Your task to perform on an android device: When is my next appointment? Image 0: 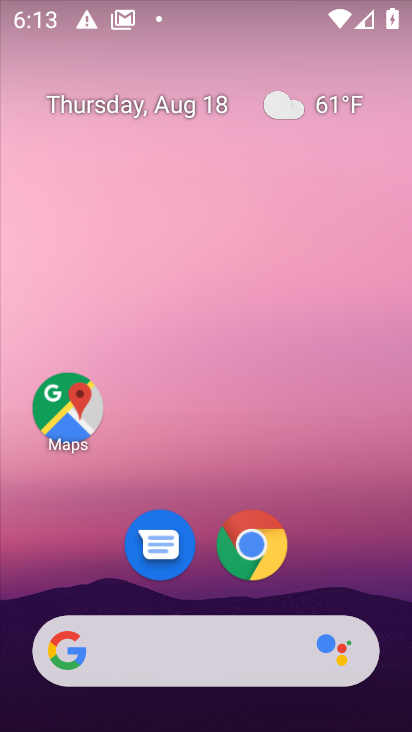
Step 0: drag from (326, 551) to (216, 79)
Your task to perform on an android device: When is my next appointment? Image 1: 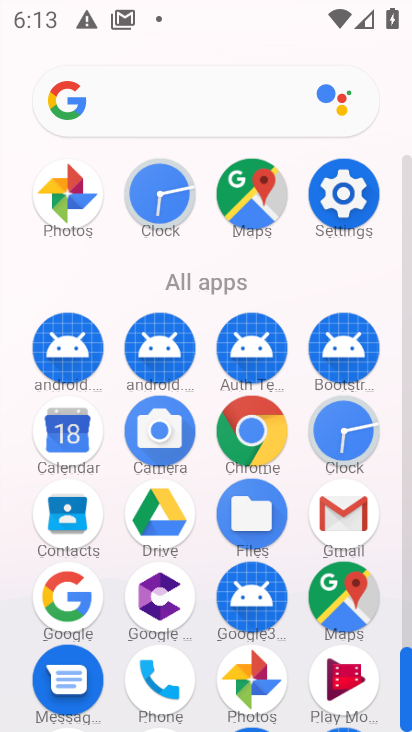
Step 1: click (72, 444)
Your task to perform on an android device: When is my next appointment? Image 2: 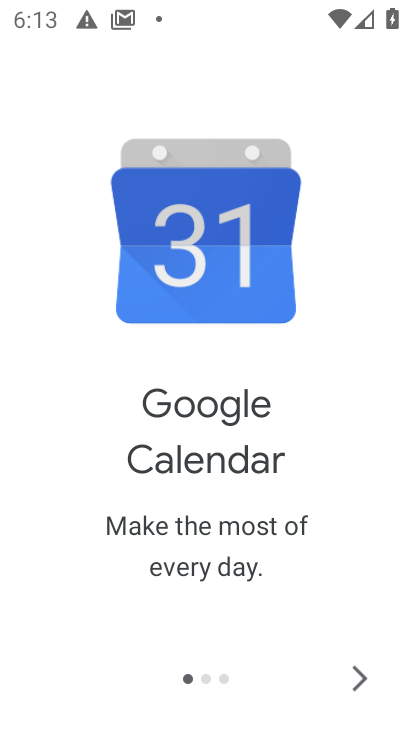
Step 2: click (354, 675)
Your task to perform on an android device: When is my next appointment? Image 3: 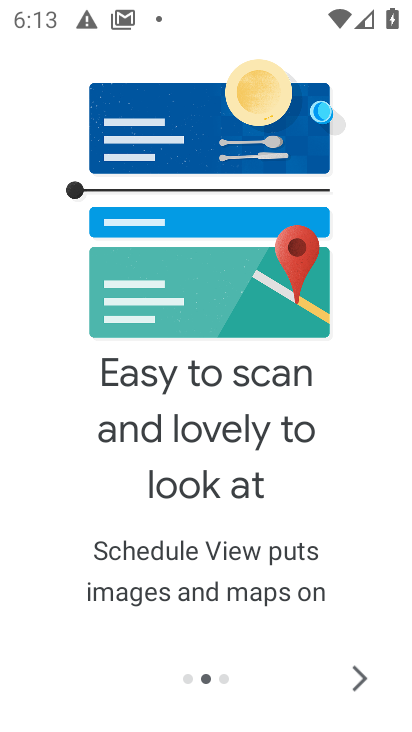
Step 3: click (360, 669)
Your task to perform on an android device: When is my next appointment? Image 4: 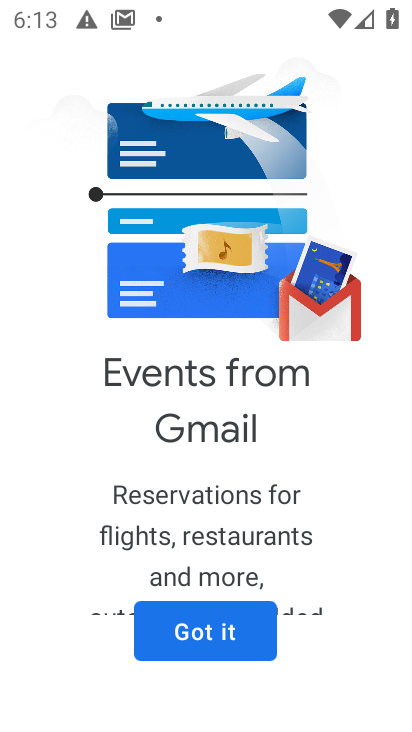
Step 4: click (204, 619)
Your task to perform on an android device: When is my next appointment? Image 5: 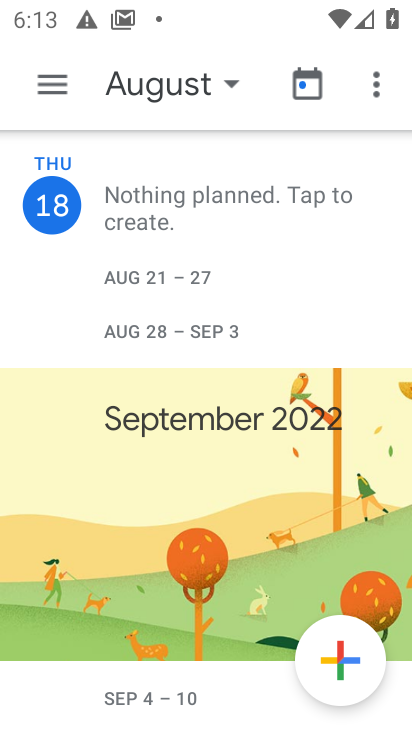
Step 5: click (267, 387)
Your task to perform on an android device: When is my next appointment? Image 6: 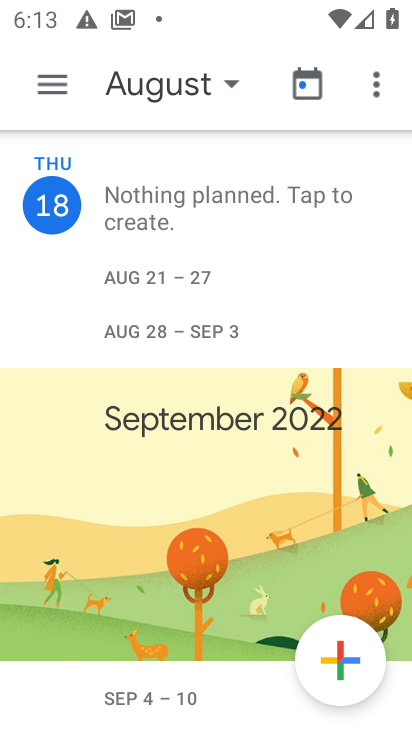
Step 6: click (49, 73)
Your task to perform on an android device: When is my next appointment? Image 7: 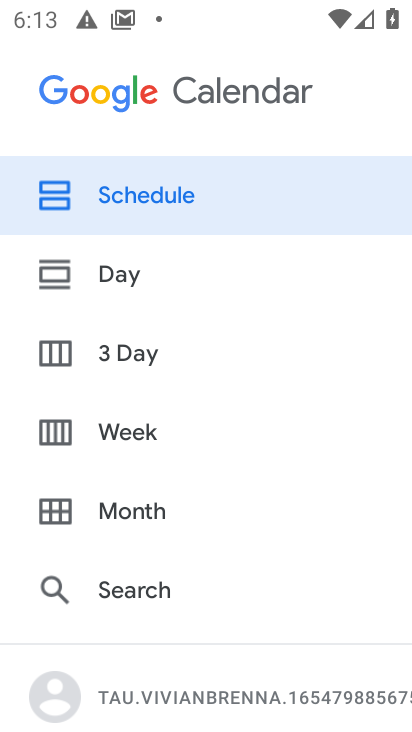
Step 7: click (120, 270)
Your task to perform on an android device: When is my next appointment? Image 8: 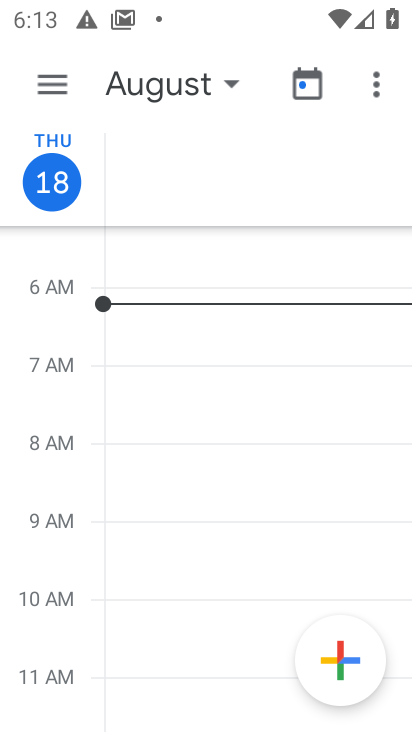
Step 8: task complete